Your task to perform on an android device: star an email in the gmail app Image 0: 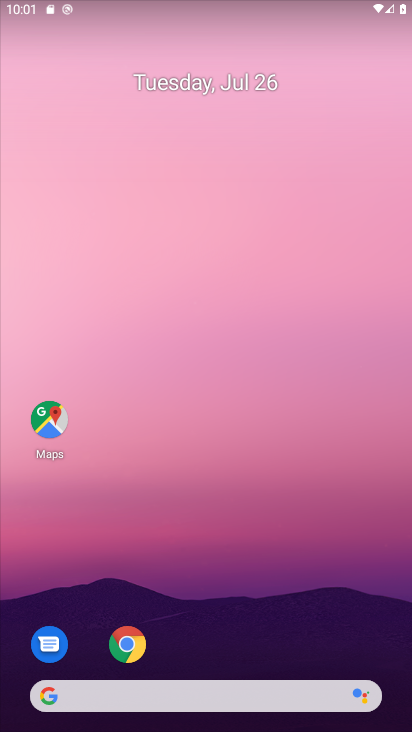
Step 0: drag from (190, 656) to (247, 109)
Your task to perform on an android device: star an email in the gmail app Image 1: 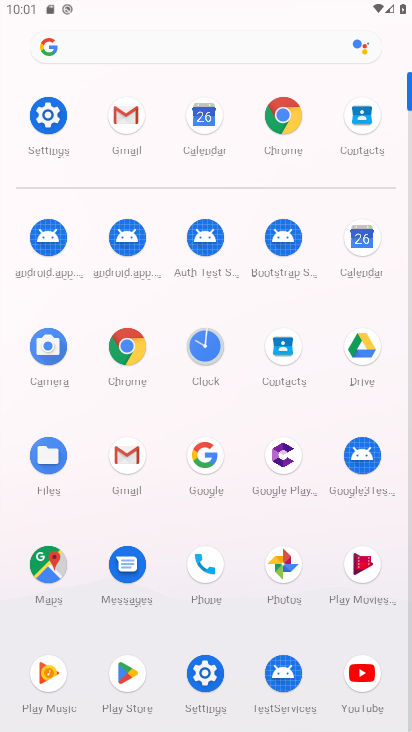
Step 1: click (126, 461)
Your task to perform on an android device: star an email in the gmail app Image 2: 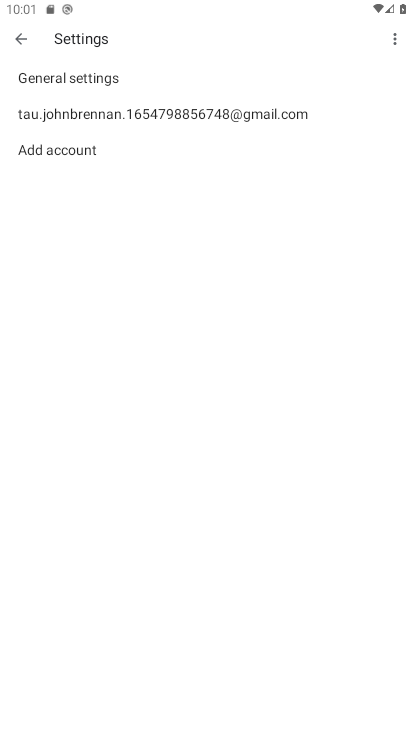
Step 2: click (14, 31)
Your task to perform on an android device: star an email in the gmail app Image 3: 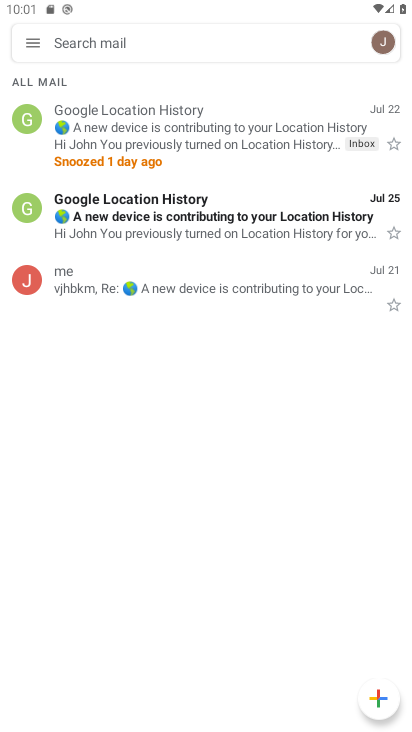
Step 3: click (390, 138)
Your task to perform on an android device: star an email in the gmail app Image 4: 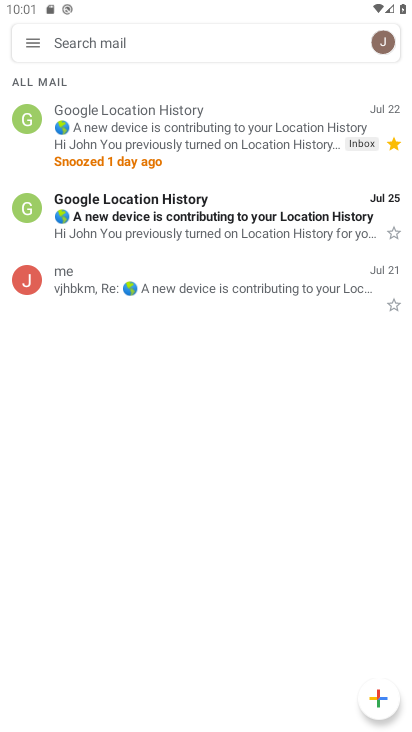
Step 4: task complete